Your task to perform on an android device: toggle notification dots Image 0: 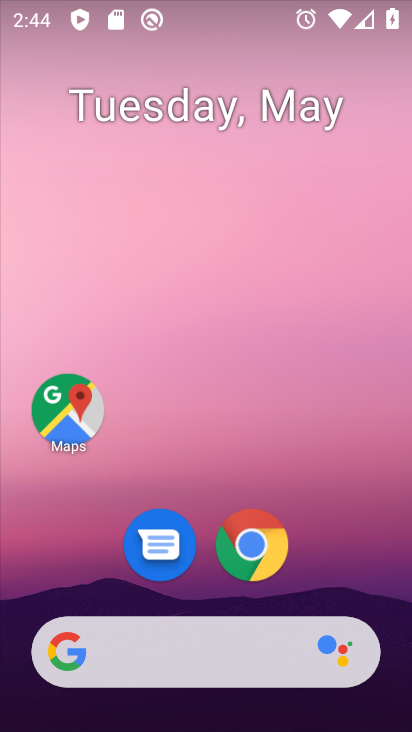
Step 0: drag from (204, 550) to (301, 71)
Your task to perform on an android device: toggle notification dots Image 1: 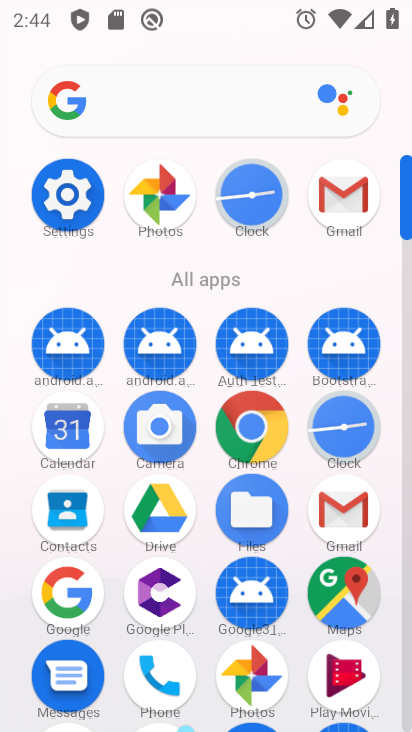
Step 1: click (73, 201)
Your task to perform on an android device: toggle notification dots Image 2: 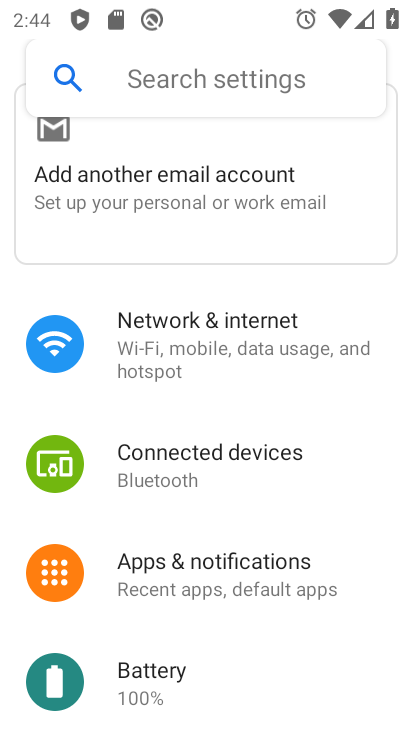
Step 2: click (204, 570)
Your task to perform on an android device: toggle notification dots Image 3: 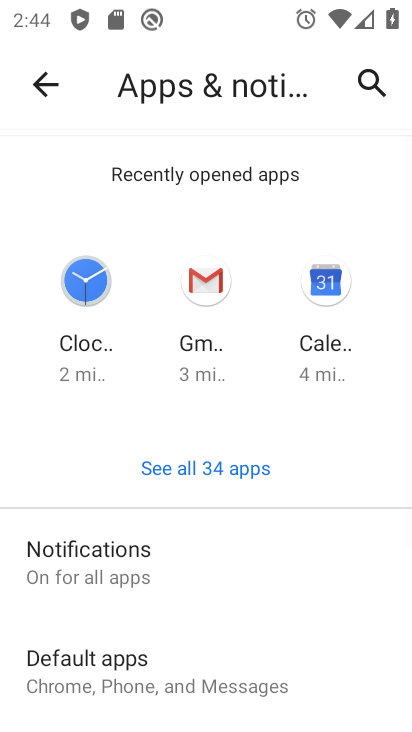
Step 3: click (170, 572)
Your task to perform on an android device: toggle notification dots Image 4: 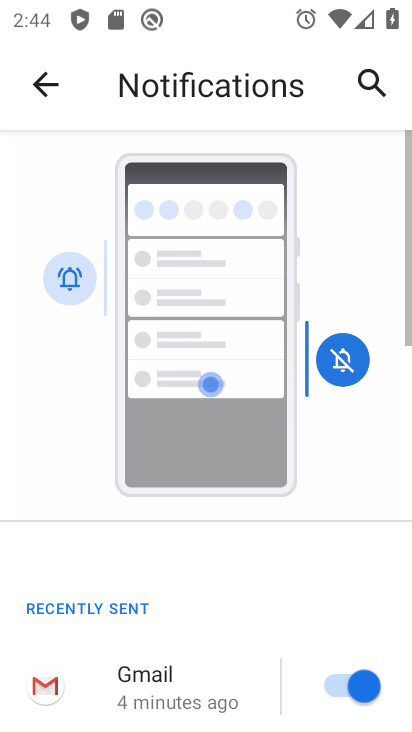
Step 4: drag from (245, 586) to (272, 188)
Your task to perform on an android device: toggle notification dots Image 5: 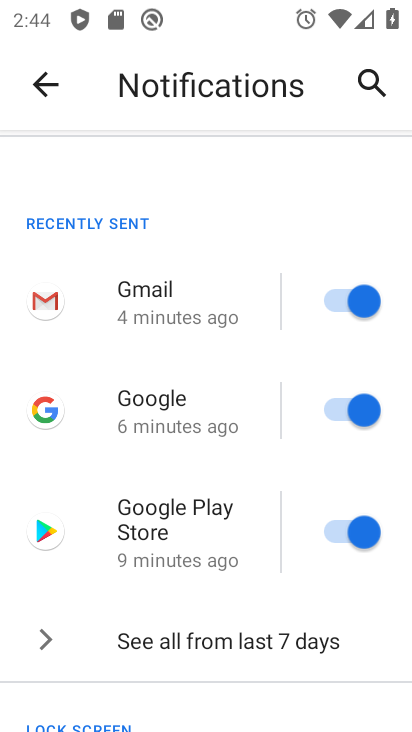
Step 5: drag from (227, 663) to (251, 214)
Your task to perform on an android device: toggle notification dots Image 6: 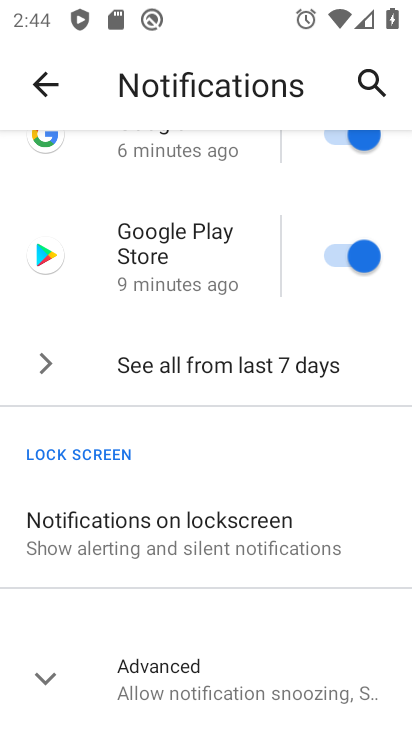
Step 6: click (234, 659)
Your task to perform on an android device: toggle notification dots Image 7: 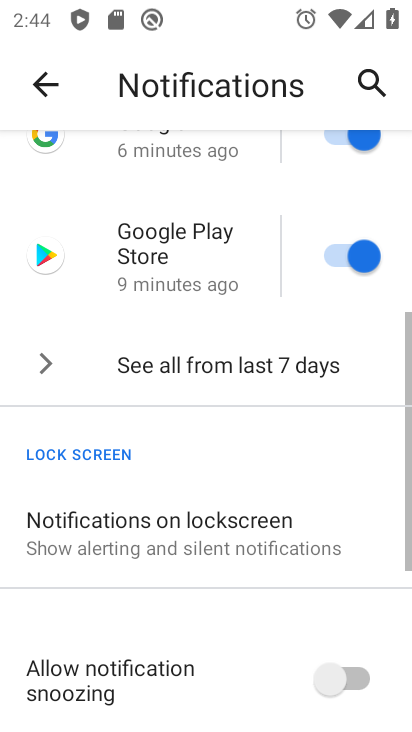
Step 7: drag from (237, 650) to (264, 182)
Your task to perform on an android device: toggle notification dots Image 8: 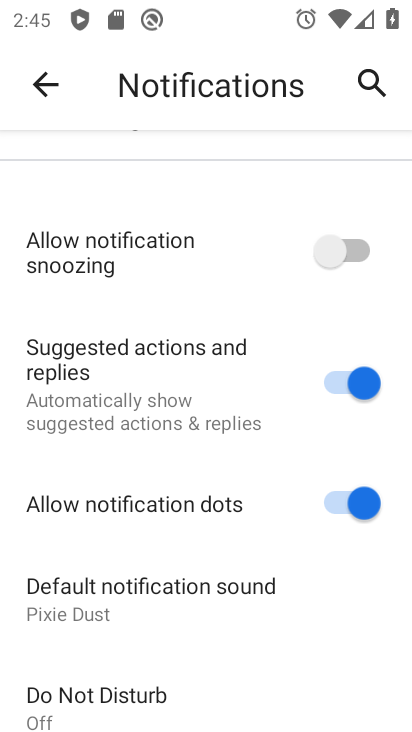
Step 8: click (349, 508)
Your task to perform on an android device: toggle notification dots Image 9: 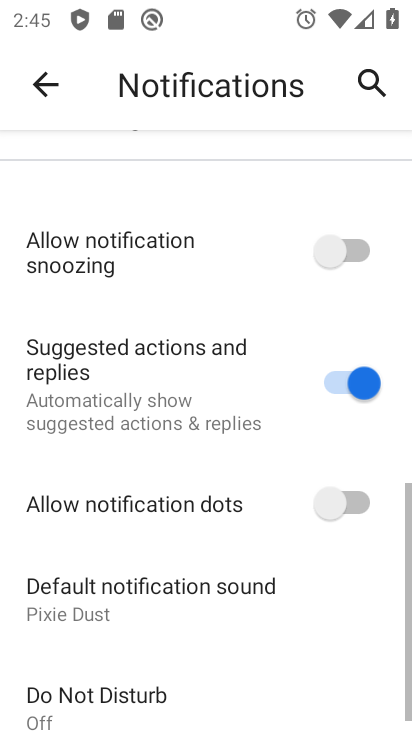
Step 9: task complete